Your task to perform on an android device: turn off data saver in the chrome app Image 0: 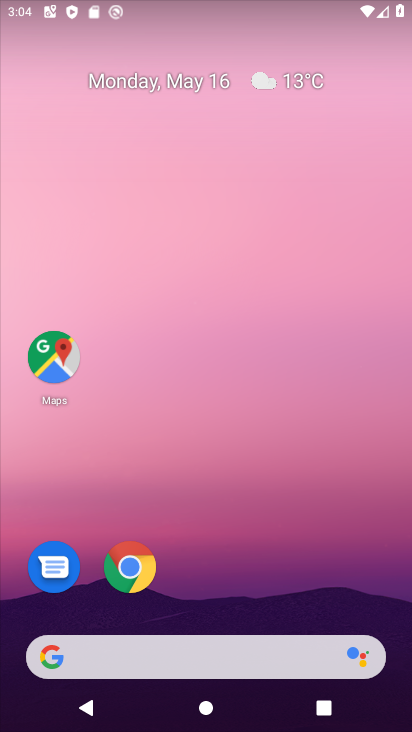
Step 0: click (128, 564)
Your task to perform on an android device: turn off data saver in the chrome app Image 1: 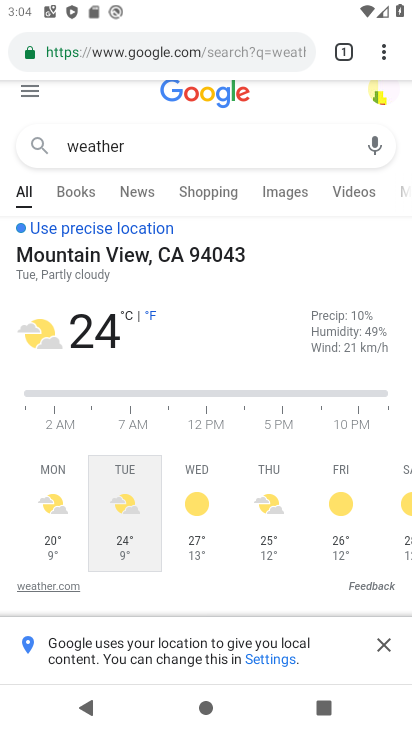
Step 1: drag from (379, 47) to (239, 638)
Your task to perform on an android device: turn off data saver in the chrome app Image 2: 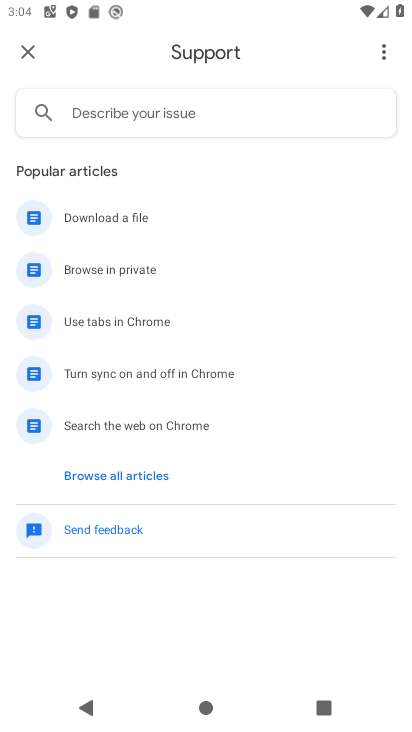
Step 2: click (34, 55)
Your task to perform on an android device: turn off data saver in the chrome app Image 3: 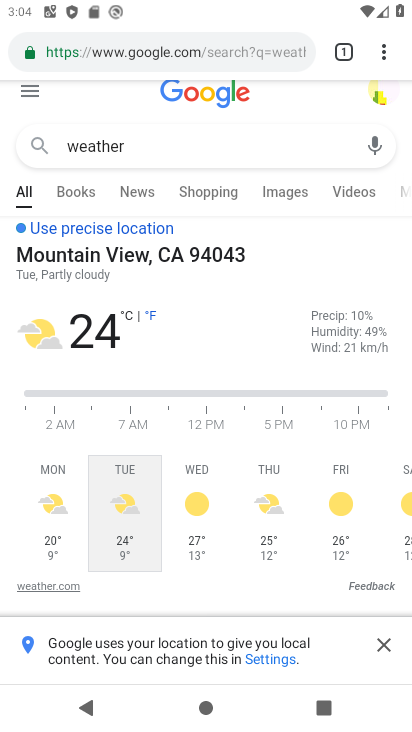
Step 3: drag from (374, 51) to (200, 619)
Your task to perform on an android device: turn off data saver in the chrome app Image 4: 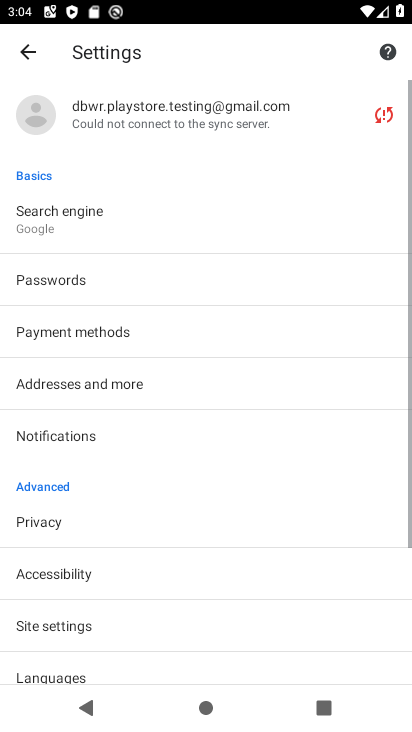
Step 4: drag from (189, 526) to (266, 180)
Your task to perform on an android device: turn off data saver in the chrome app Image 5: 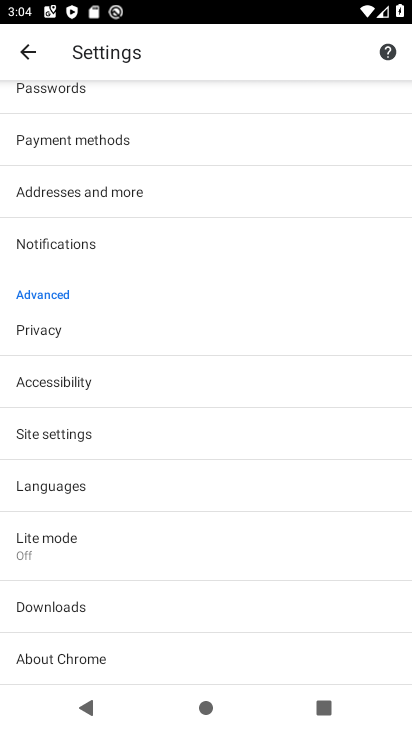
Step 5: click (77, 561)
Your task to perform on an android device: turn off data saver in the chrome app Image 6: 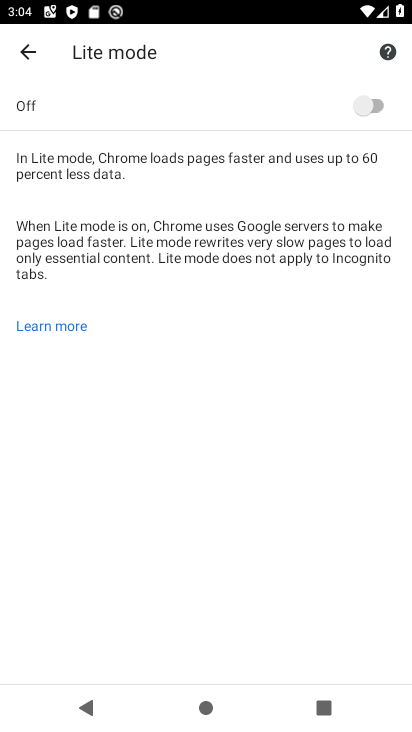
Step 6: task complete